Your task to perform on an android device: turn vacation reply on in the gmail app Image 0: 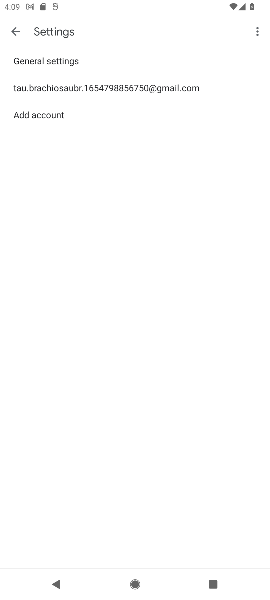
Step 0: press home button
Your task to perform on an android device: turn vacation reply on in the gmail app Image 1: 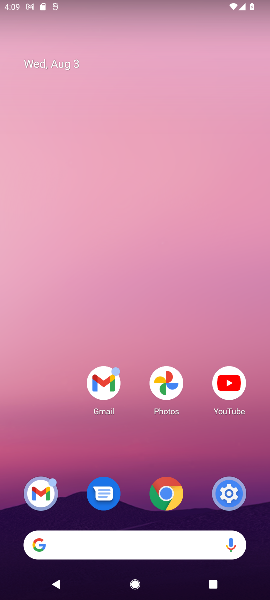
Step 1: drag from (51, 445) to (41, 119)
Your task to perform on an android device: turn vacation reply on in the gmail app Image 2: 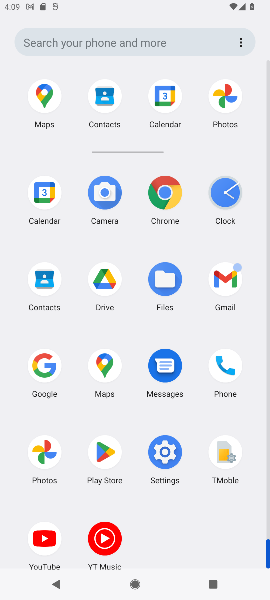
Step 2: click (226, 281)
Your task to perform on an android device: turn vacation reply on in the gmail app Image 3: 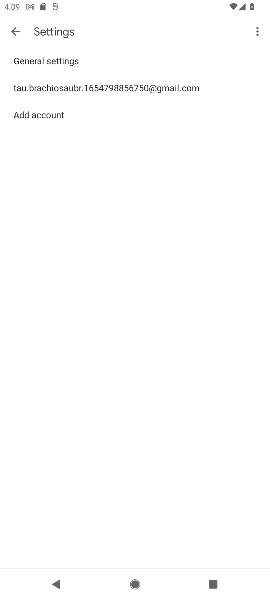
Step 3: click (116, 85)
Your task to perform on an android device: turn vacation reply on in the gmail app Image 4: 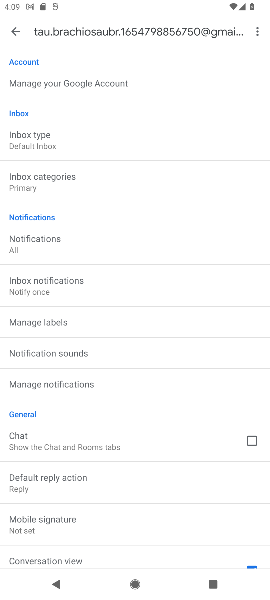
Step 4: drag from (169, 305) to (176, 264)
Your task to perform on an android device: turn vacation reply on in the gmail app Image 5: 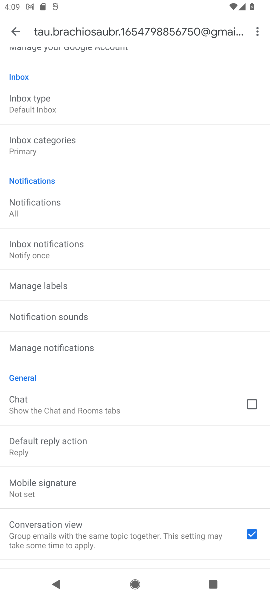
Step 5: drag from (182, 339) to (187, 288)
Your task to perform on an android device: turn vacation reply on in the gmail app Image 6: 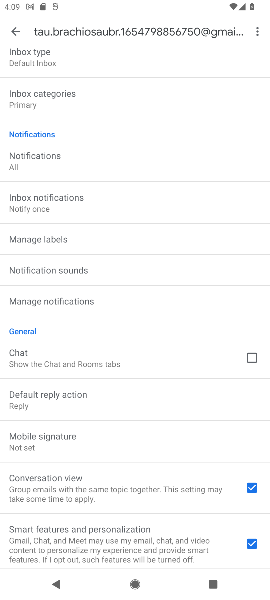
Step 6: drag from (187, 341) to (190, 271)
Your task to perform on an android device: turn vacation reply on in the gmail app Image 7: 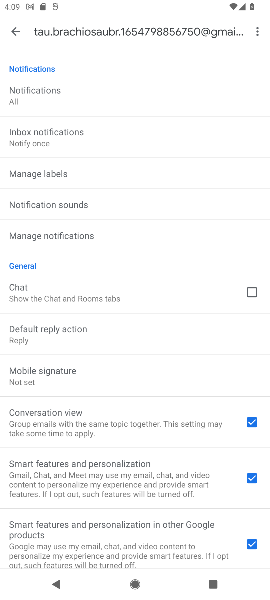
Step 7: drag from (188, 401) to (190, 341)
Your task to perform on an android device: turn vacation reply on in the gmail app Image 8: 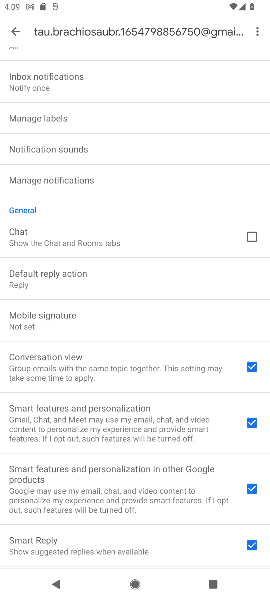
Step 8: drag from (172, 458) to (173, 383)
Your task to perform on an android device: turn vacation reply on in the gmail app Image 9: 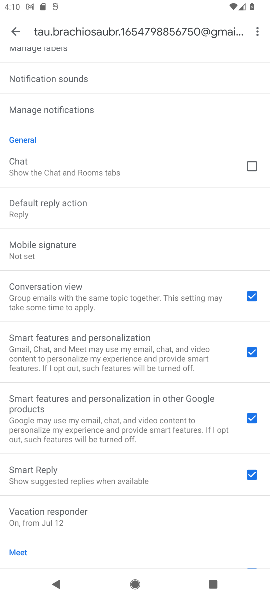
Step 9: drag from (148, 460) to (152, 349)
Your task to perform on an android device: turn vacation reply on in the gmail app Image 10: 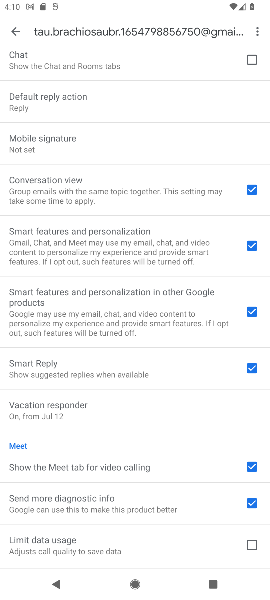
Step 10: drag from (144, 447) to (164, 246)
Your task to perform on an android device: turn vacation reply on in the gmail app Image 11: 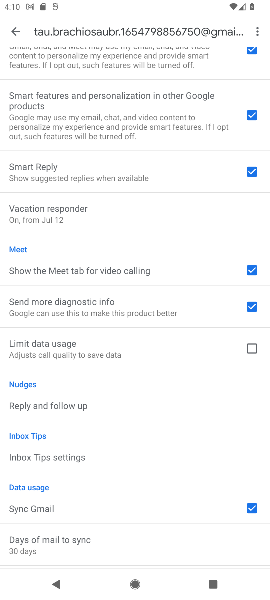
Step 11: drag from (159, 420) to (162, 307)
Your task to perform on an android device: turn vacation reply on in the gmail app Image 12: 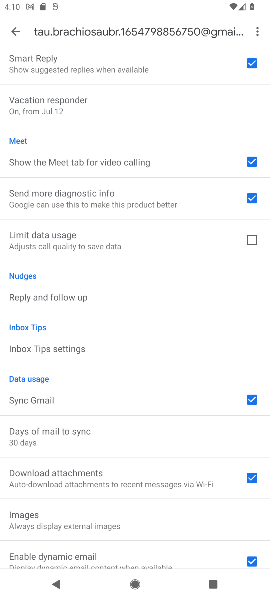
Step 12: drag from (151, 482) to (160, 344)
Your task to perform on an android device: turn vacation reply on in the gmail app Image 13: 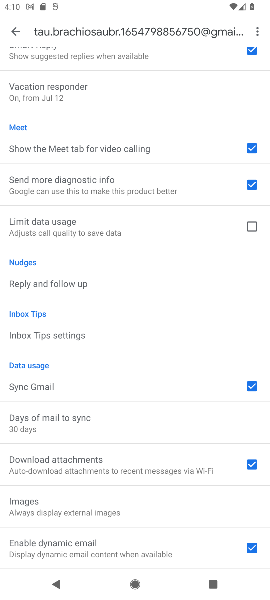
Step 13: drag from (154, 433) to (156, 371)
Your task to perform on an android device: turn vacation reply on in the gmail app Image 14: 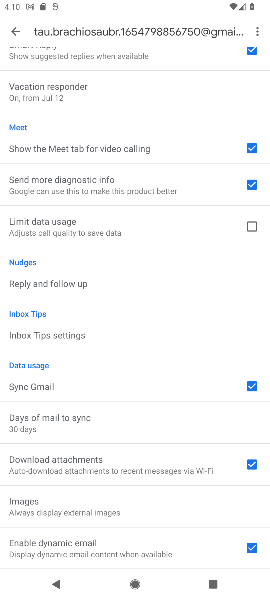
Step 14: drag from (147, 511) to (166, 368)
Your task to perform on an android device: turn vacation reply on in the gmail app Image 15: 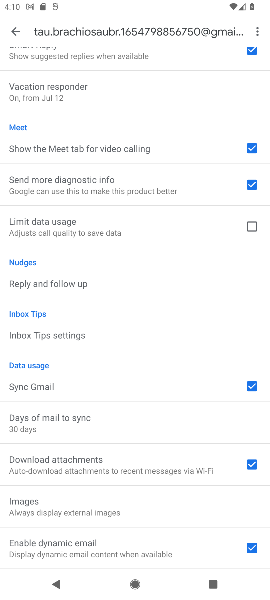
Step 15: drag from (174, 281) to (169, 372)
Your task to perform on an android device: turn vacation reply on in the gmail app Image 16: 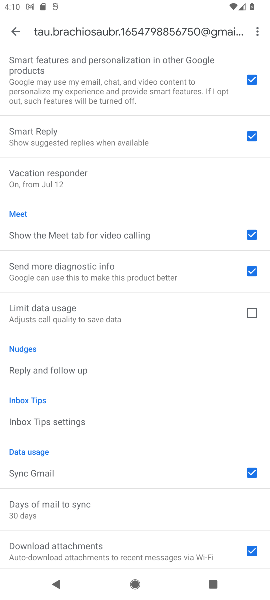
Step 16: drag from (184, 185) to (168, 334)
Your task to perform on an android device: turn vacation reply on in the gmail app Image 17: 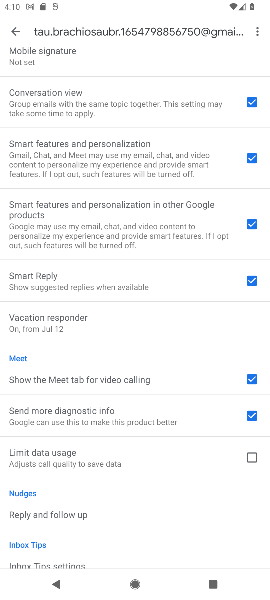
Step 17: click (97, 329)
Your task to perform on an android device: turn vacation reply on in the gmail app Image 18: 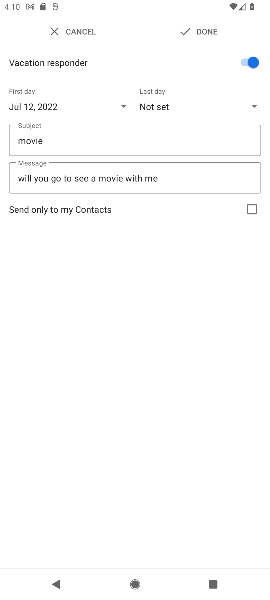
Step 18: task complete